Your task to perform on an android device: change alarm snooze length Image 0: 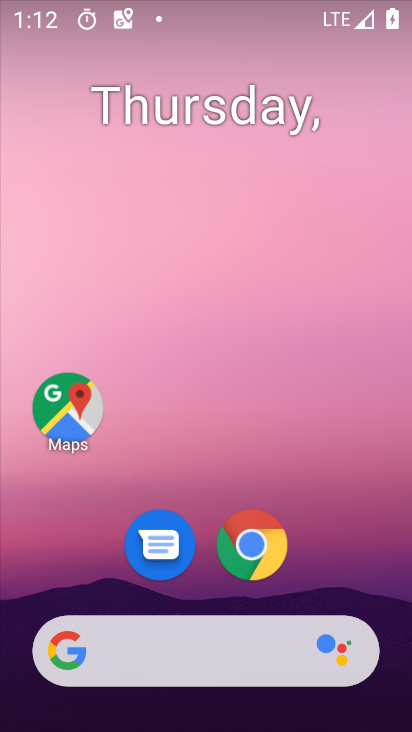
Step 0: drag from (164, 605) to (189, 38)
Your task to perform on an android device: change alarm snooze length Image 1: 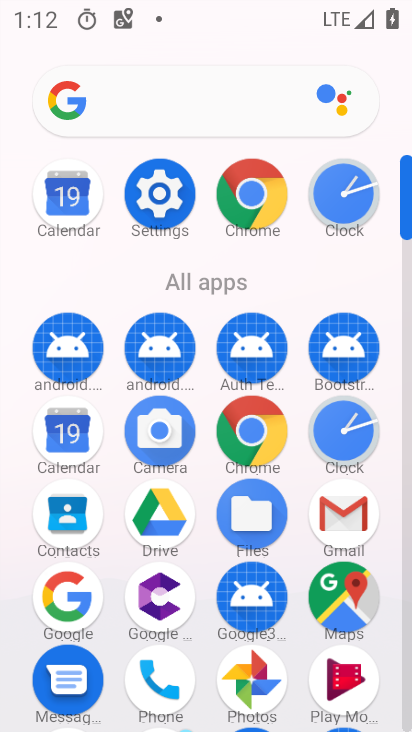
Step 1: click (334, 425)
Your task to perform on an android device: change alarm snooze length Image 2: 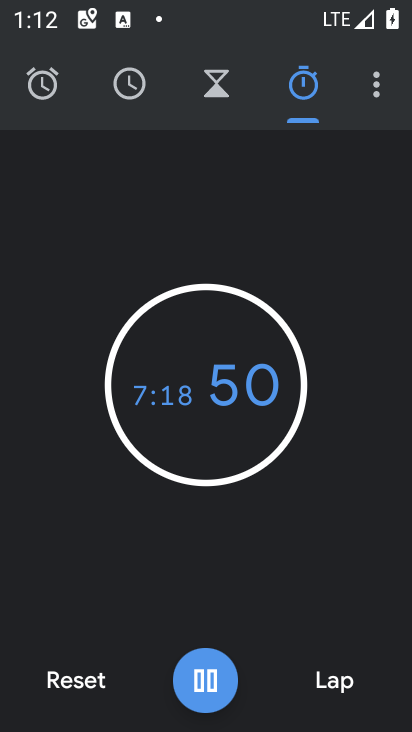
Step 2: click (368, 88)
Your task to perform on an android device: change alarm snooze length Image 3: 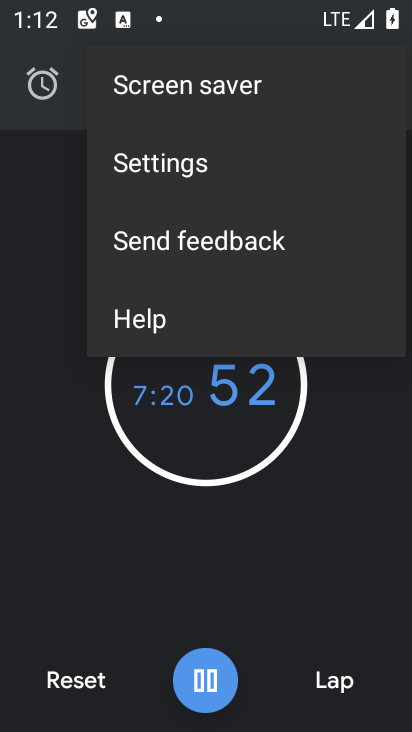
Step 3: click (222, 161)
Your task to perform on an android device: change alarm snooze length Image 4: 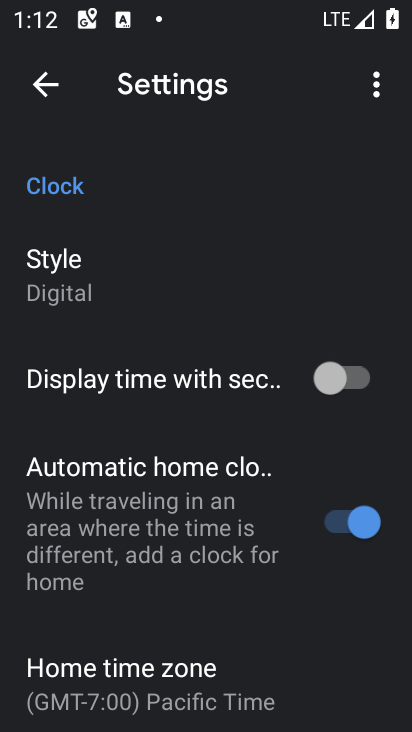
Step 4: drag from (206, 599) to (222, 82)
Your task to perform on an android device: change alarm snooze length Image 5: 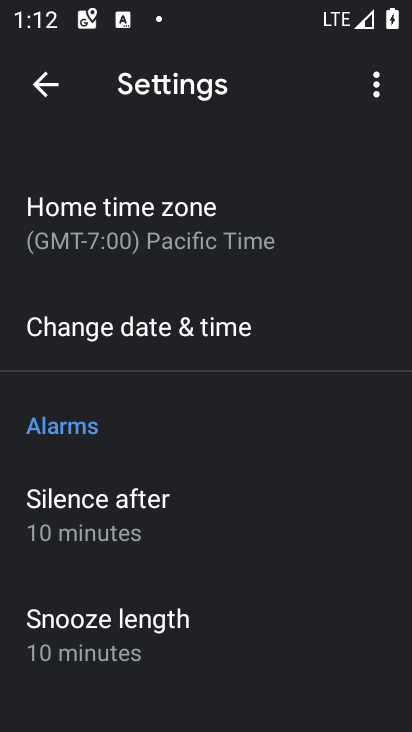
Step 5: click (174, 635)
Your task to perform on an android device: change alarm snooze length Image 6: 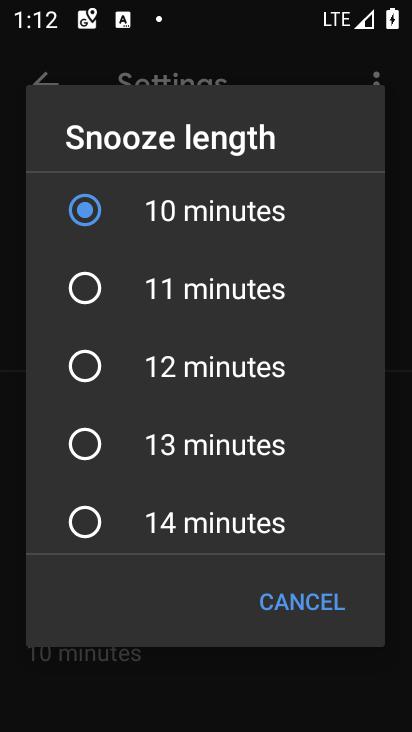
Step 6: click (100, 291)
Your task to perform on an android device: change alarm snooze length Image 7: 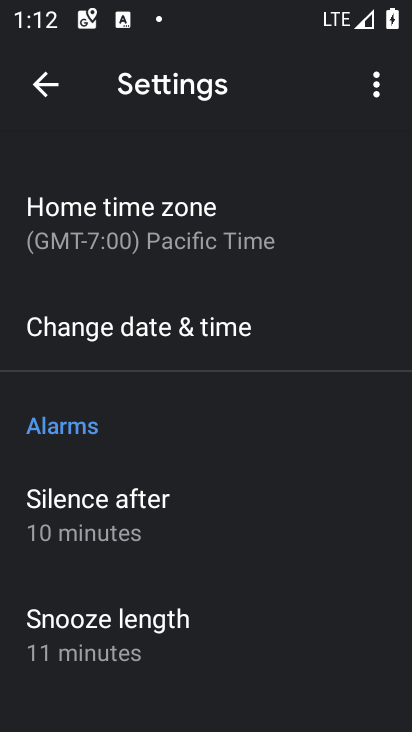
Step 7: task complete